Your task to perform on an android device: turn off airplane mode Image 0: 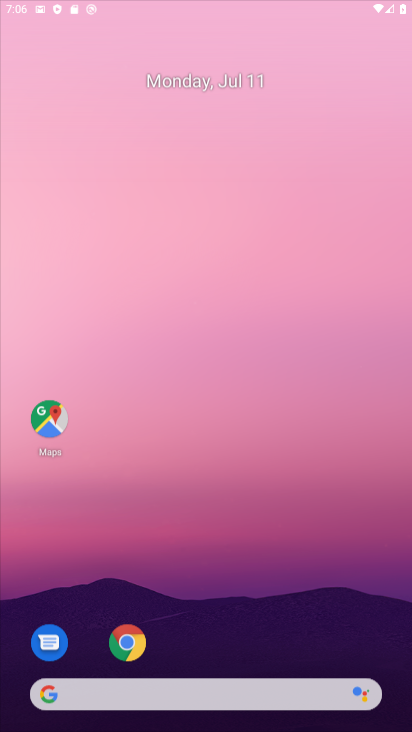
Step 0: drag from (210, 310) to (186, 160)
Your task to perform on an android device: turn off airplane mode Image 1: 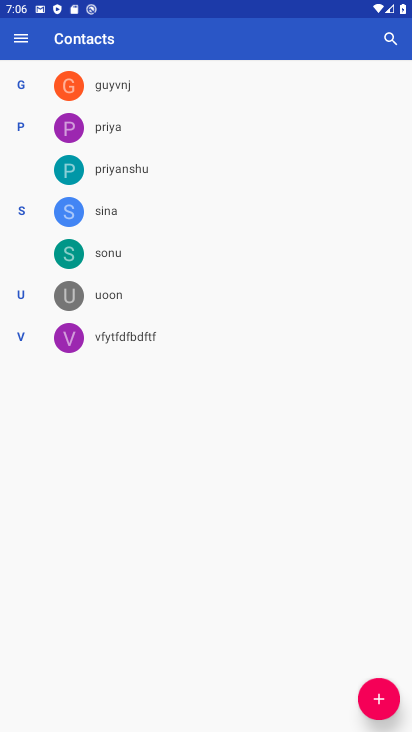
Step 1: press home button
Your task to perform on an android device: turn off airplane mode Image 2: 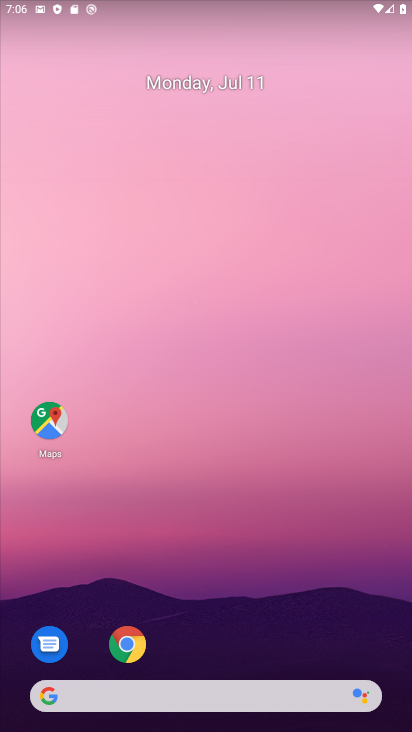
Step 2: drag from (278, 555) to (190, 92)
Your task to perform on an android device: turn off airplane mode Image 3: 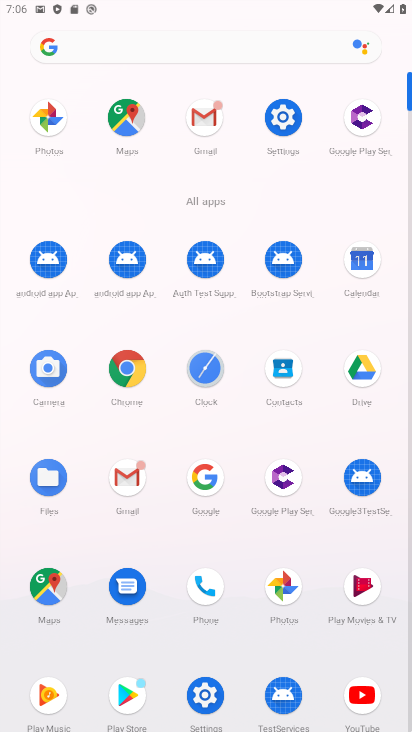
Step 3: click (286, 113)
Your task to perform on an android device: turn off airplane mode Image 4: 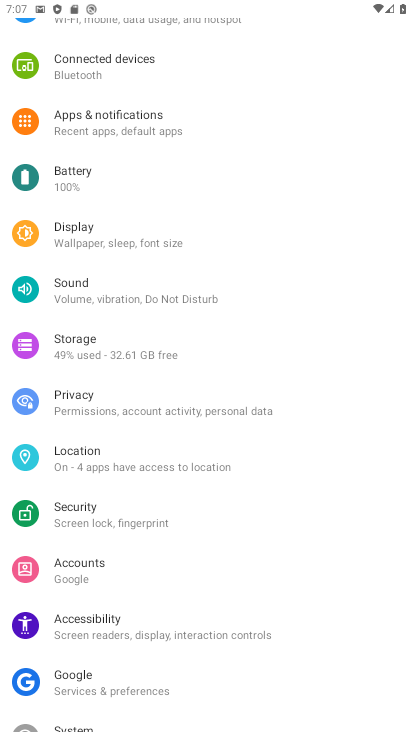
Step 4: drag from (269, 81) to (295, 385)
Your task to perform on an android device: turn off airplane mode Image 5: 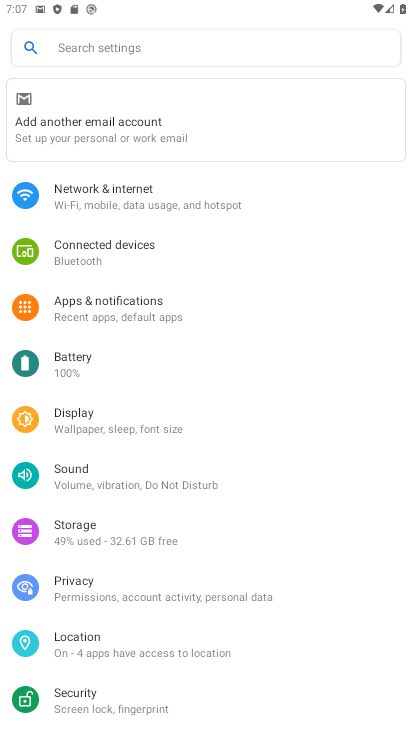
Step 5: click (116, 191)
Your task to perform on an android device: turn off airplane mode Image 6: 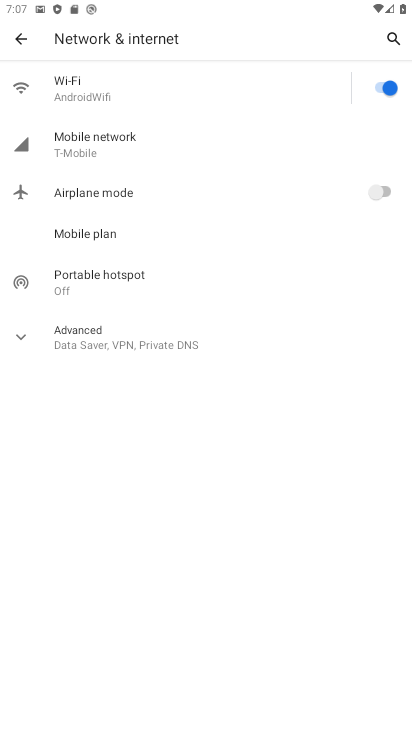
Step 6: task complete